Your task to perform on an android device: Go to settings Image 0: 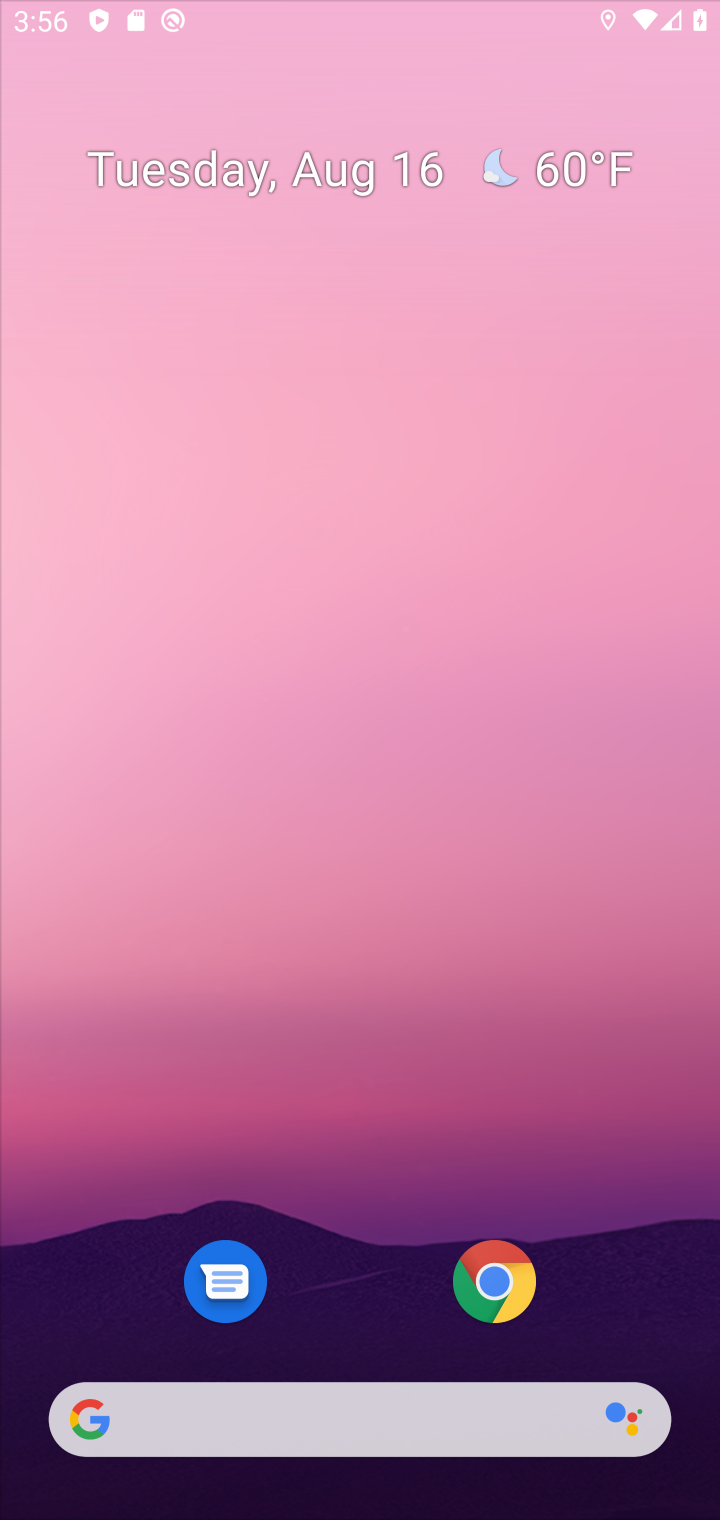
Step 0: click (412, 296)
Your task to perform on an android device: Go to settings Image 1: 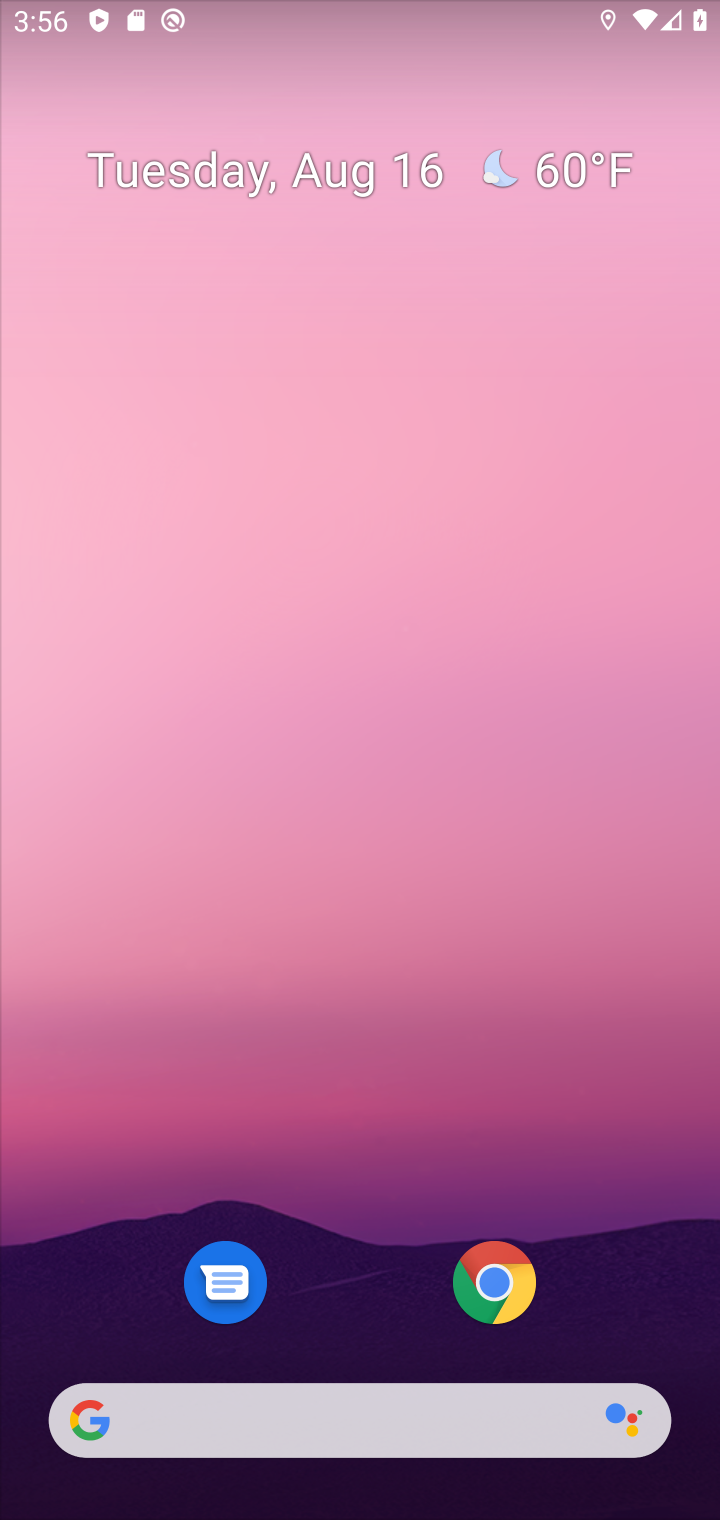
Step 1: drag from (381, 992) to (489, 103)
Your task to perform on an android device: Go to settings Image 2: 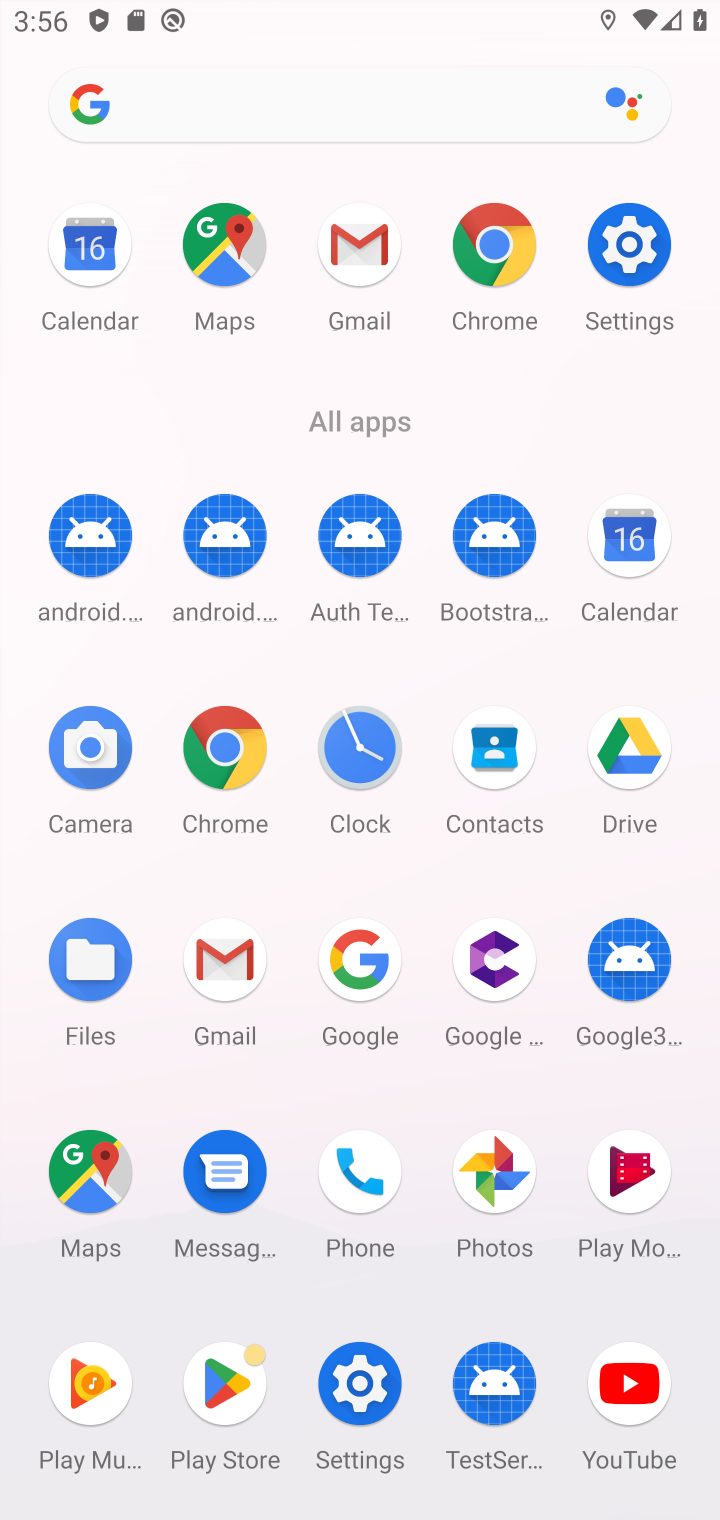
Step 2: click (633, 241)
Your task to perform on an android device: Go to settings Image 3: 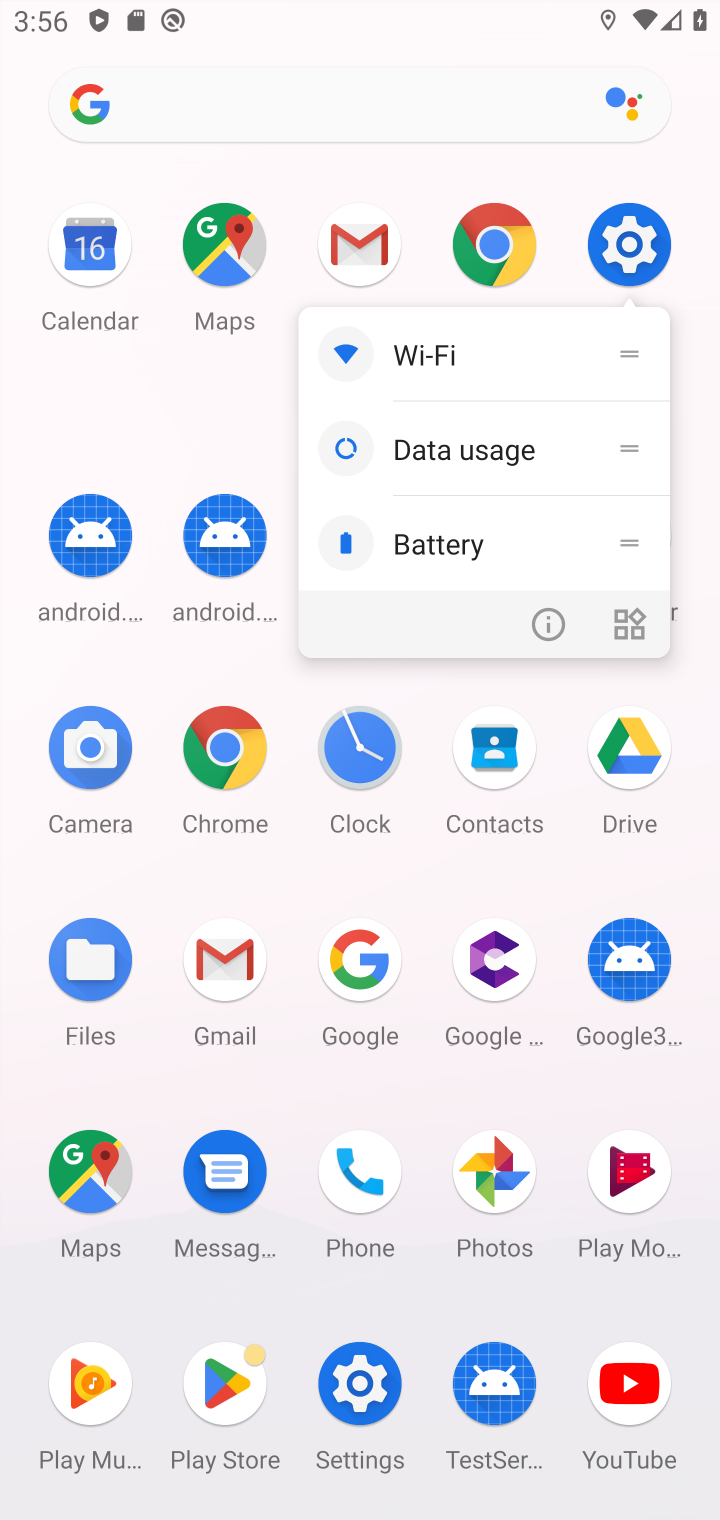
Step 3: click (653, 241)
Your task to perform on an android device: Go to settings Image 4: 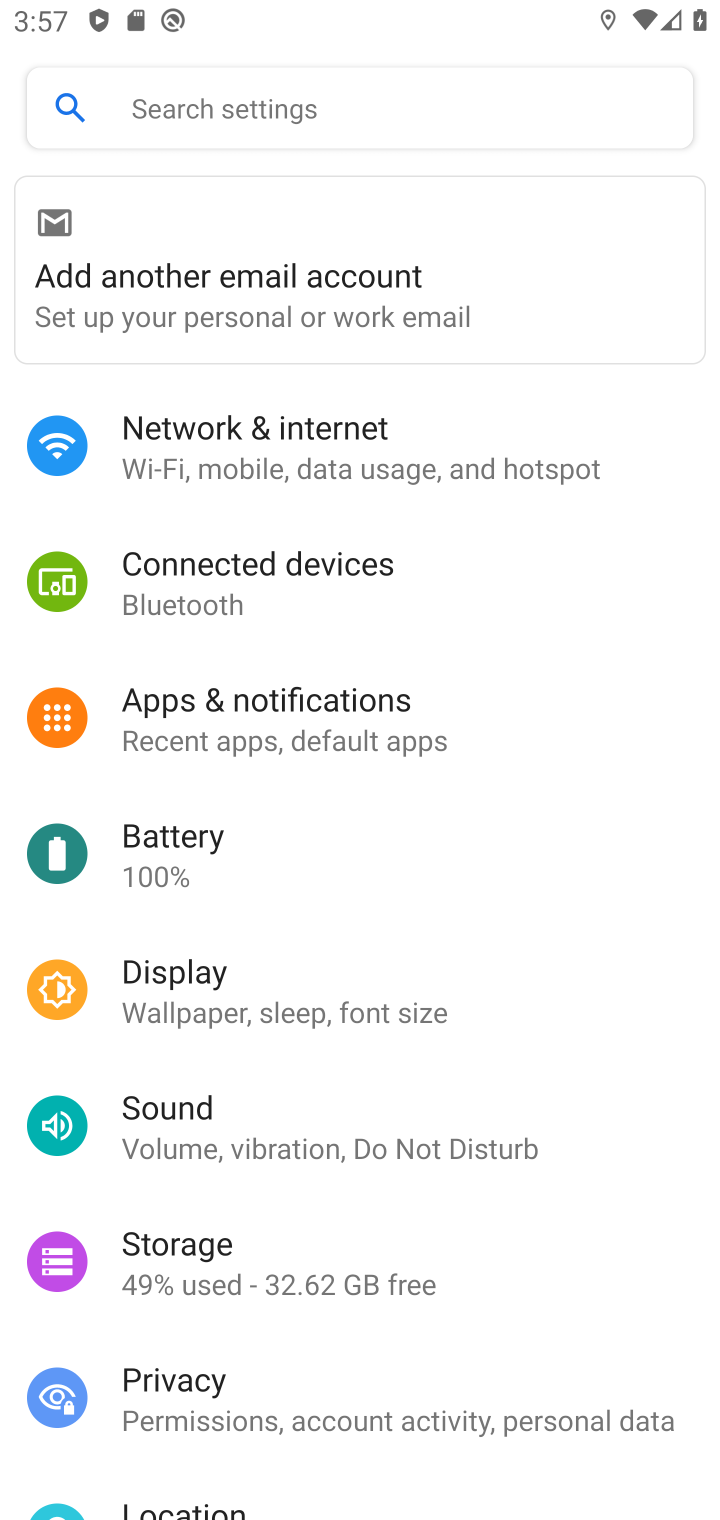
Step 4: task complete